Your task to perform on an android device: Show me recent news Image 0: 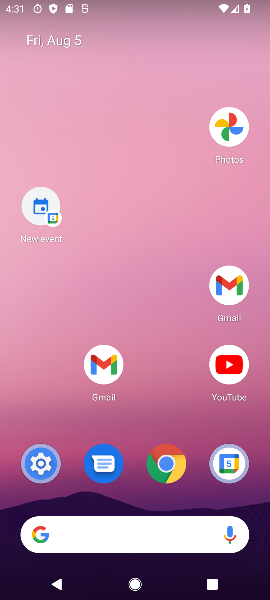
Step 0: drag from (183, 597) to (162, 192)
Your task to perform on an android device: Show me recent news Image 1: 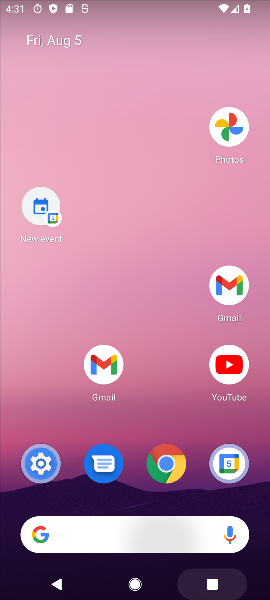
Step 1: drag from (171, 496) to (140, 226)
Your task to perform on an android device: Show me recent news Image 2: 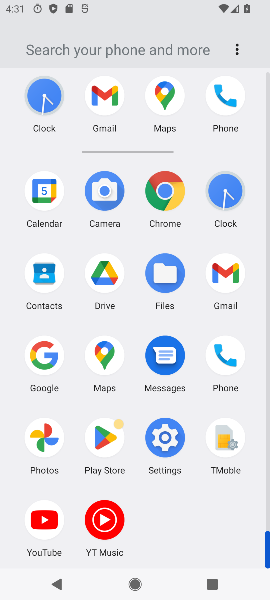
Step 2: click (151, 200)
Your task to perform on an android device: Show me recent news Image 3: 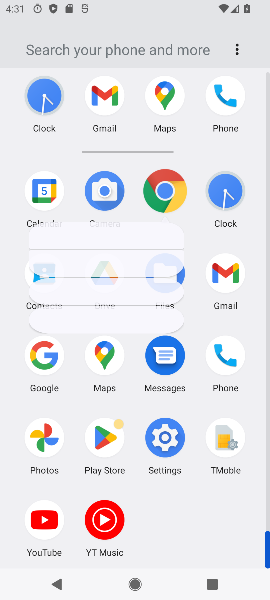
Step 3: click (152, 200)
Your task to perform on an android device: Show me recent news Image 4: 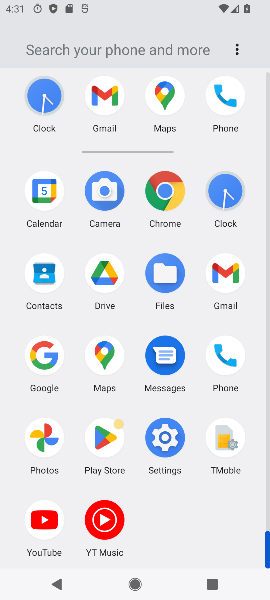
Step 4: click (154, 199)
Your task to perform on an android device: Show me recent news Image 5: 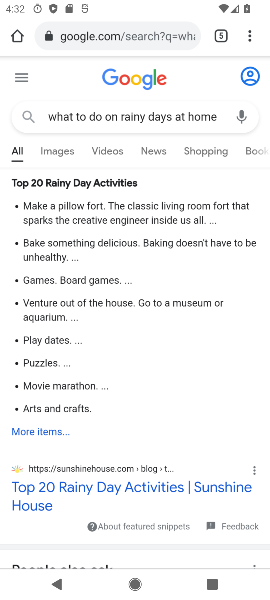
Step 5: click (177, 194)
Your task to perform on an android device: Show me recent news Image 6: 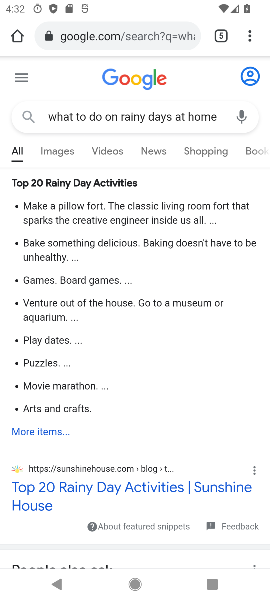
Step 6: click (249, 34)
Your task to perform on an android device: Show me recent news Image 7: 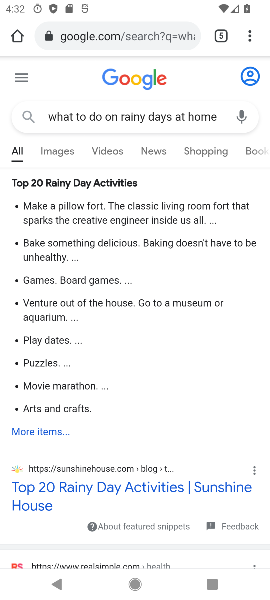
Step 7: click (249, 34)
Your task to perform on an android device: Show me recent news Image 8: 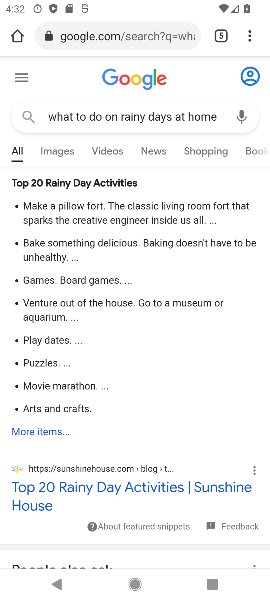
Step 8: press back button
Your task to perform on an android device: Show me recent news Image 9: 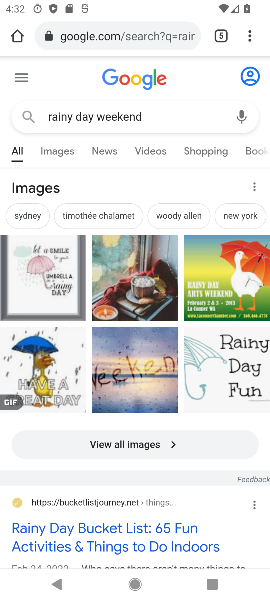
Step 9: drag from (250, 33) to (117, 134)
Your task to perform on an android device: Show me recent news Image 10: 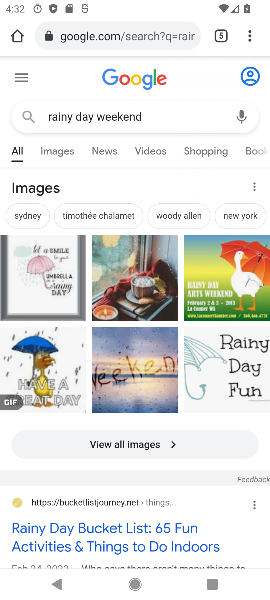
Step 10: click (53, 94)
Your task to perform on an android device: Show me recent news Image 11: 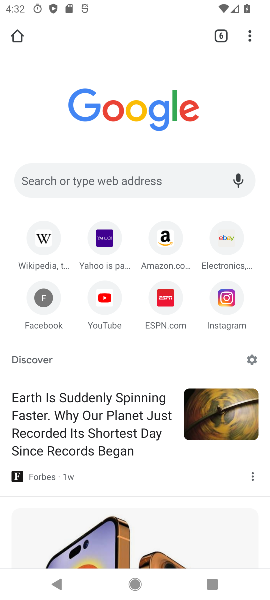
Step 11: task complete